Your task to perform on an android device: Open calendar and show me the third week of next month Image 0: 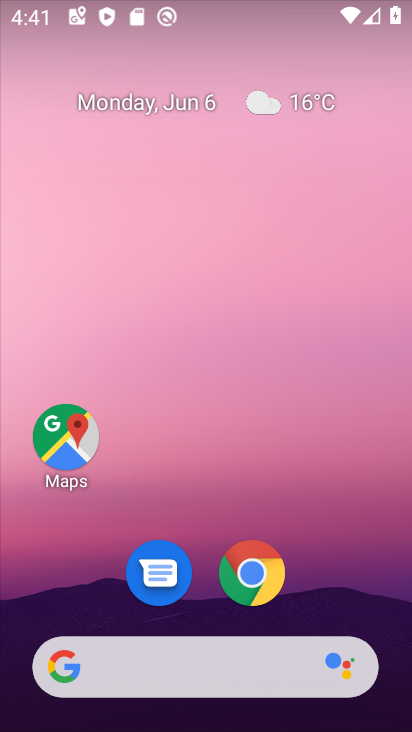
Step 0: drag from (347, 589) to (251, 107)
Your task to perform on an android device: Open calendar and show me the third week of next month Image 1: 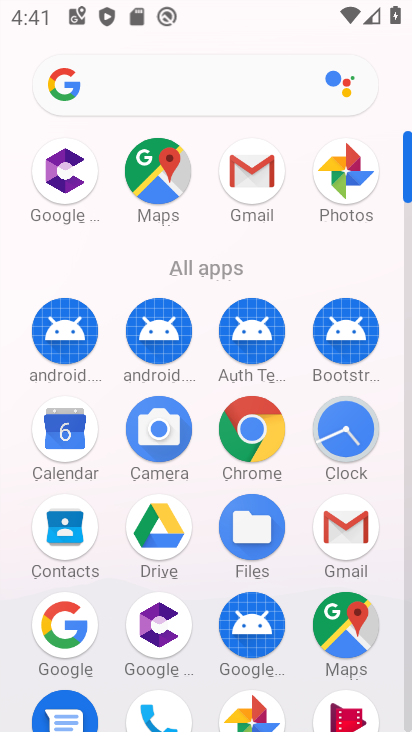
Step 1: click (63, 431)
Your task to perform on an android device: Open calendar and show me the third week of next month Image 2: 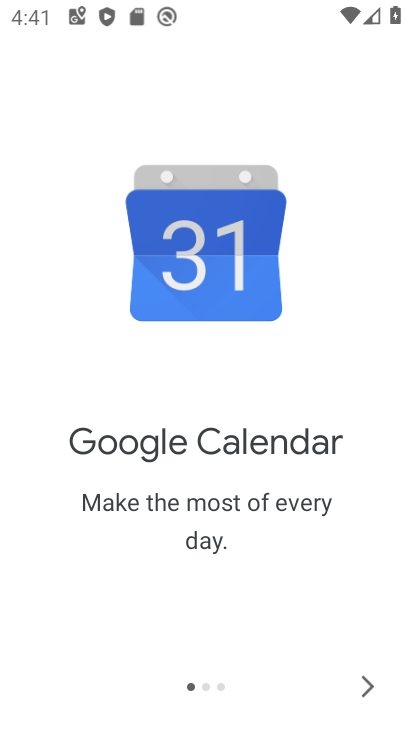
Step 2: click (369, 683)
Your task to perform on an android device: Open calendar and show me the third week of next month Image 3: 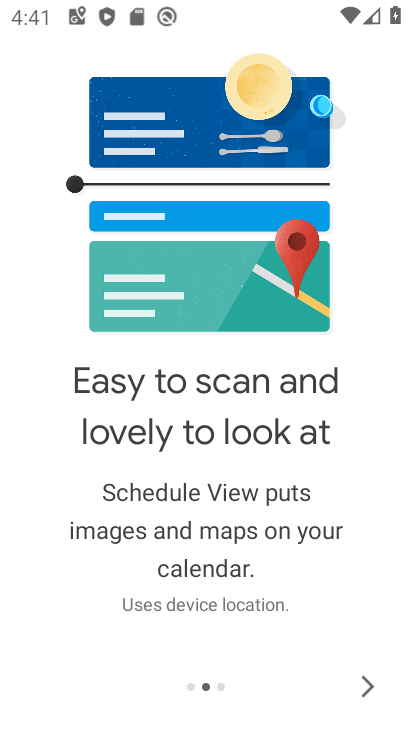
Step 3: click (369, 683)
Your task to perform on an android device: Open calendar and show me the third week of next month Image 4: 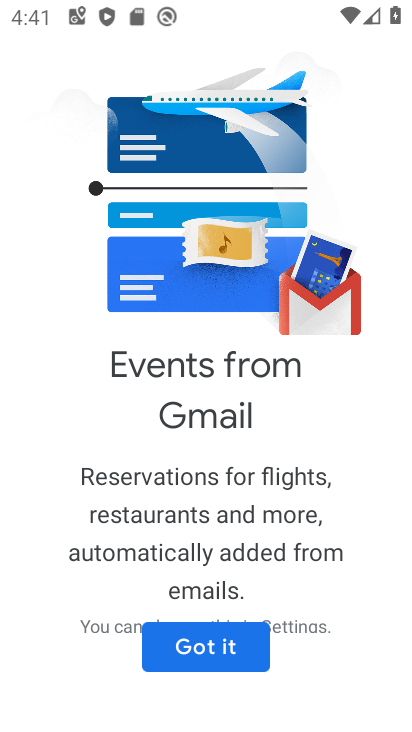
Step 4: click (221, 642)
Your task to perform on an android device: Open calendar and show me the third week of next month Image 5: 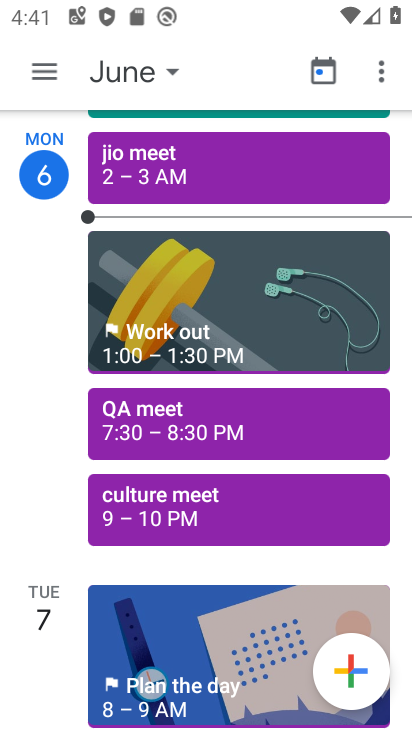
Step 5: click (171, 71)
Your task to perform on an android device: Open calendar and show me the third week of next month Image 6: 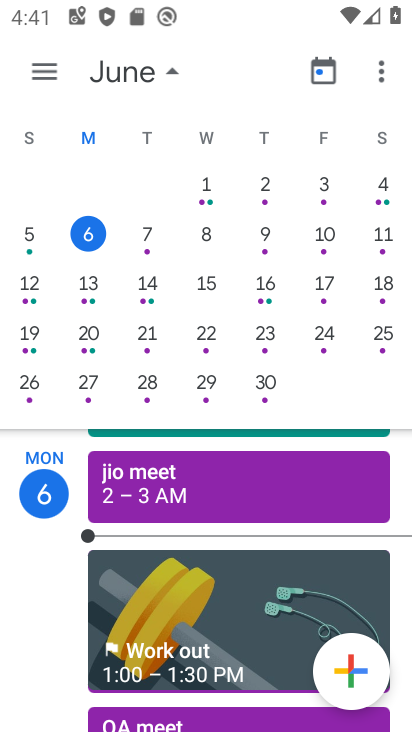
Step 6: drag from (362, 299) to (43, 268)
Your task to perform on an android device: Open calendar and show me the third week of next month Image 7: 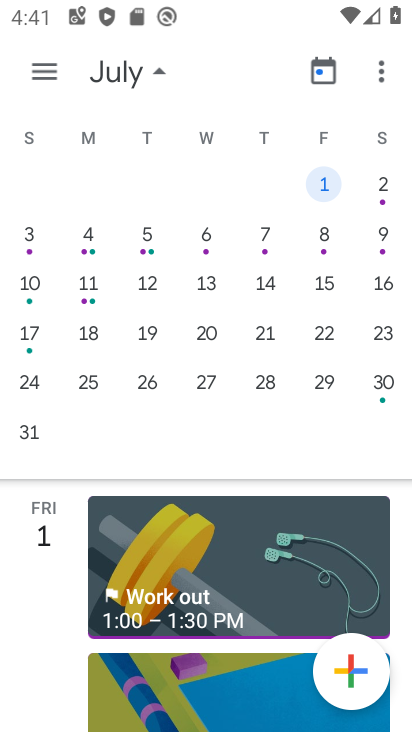
Step 7: click (102, 337)
Your task to perform on an android device: Open calendar and show me the third week of next month Image 8: 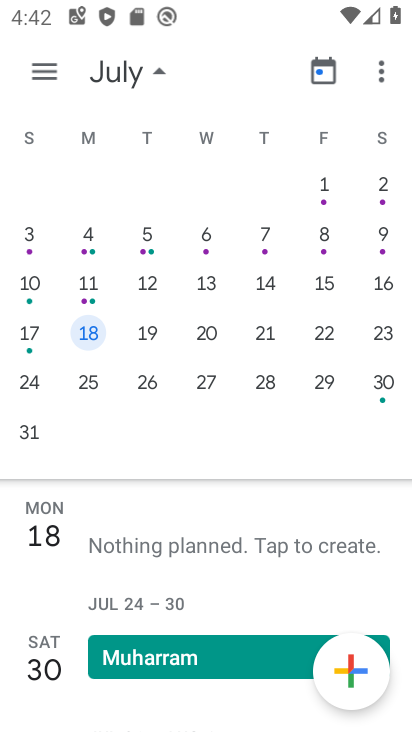
Step 8: click (49, 83)
Your task to perform on an android device: Open calendar and show me the third week of next month Image 9: 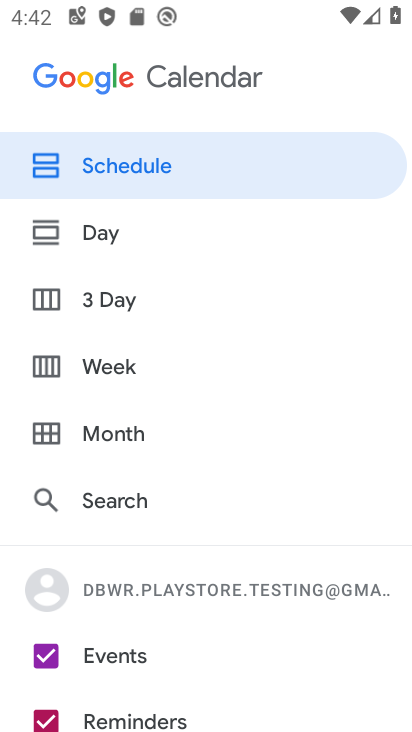
Step 9: click (109, 358)
Your task to perform on an android device: Open calendar and show me the third week of next month Image 10: 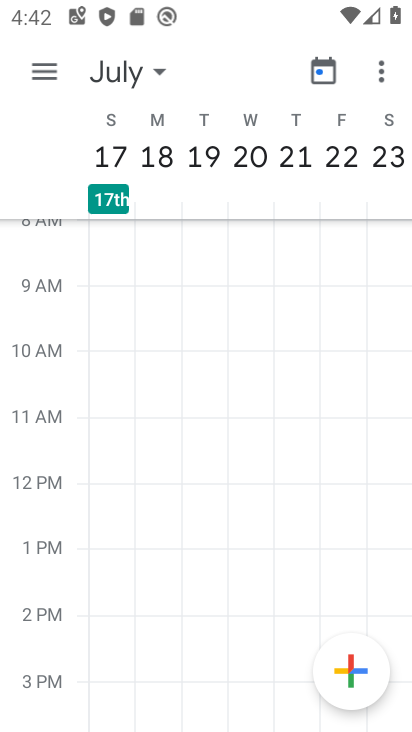
Step 10: task complete